Your task to perform on an android device: change text size in settings app Image 0: 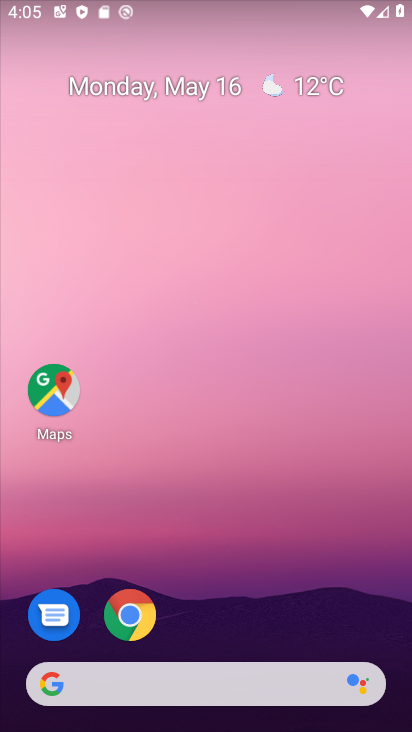
Step 0: drag from (222, 723) to (213, 212)
Your task to perform on an android device: change text size in settings app Image 1: 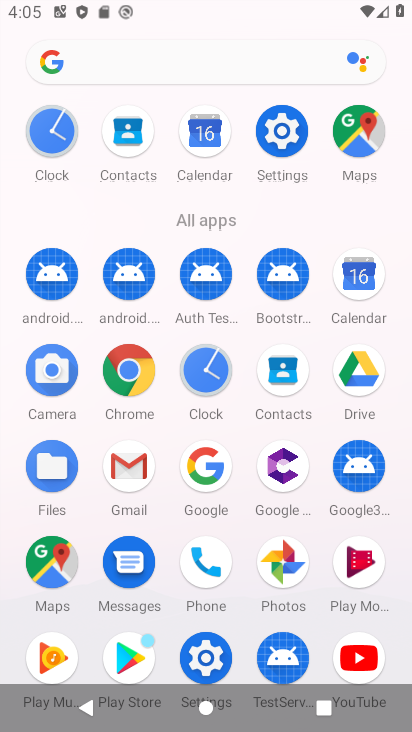
Step 1: click (279, 133)
Your task to perform on an android device: change text size in settings app Image 2: 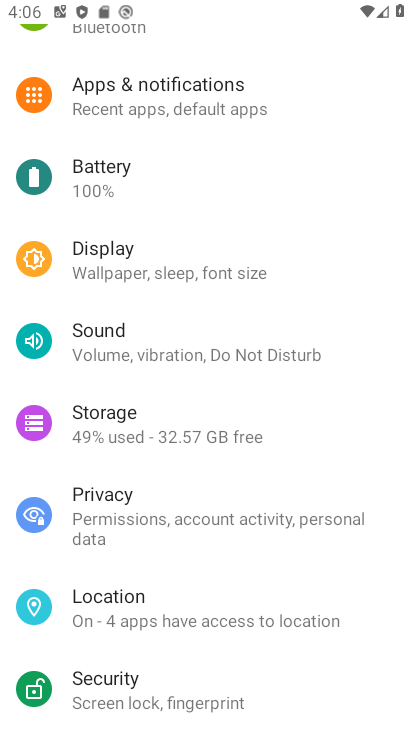
Step 2: click (147, 273)
Your task to perform on an android device: change text size in settings app Image 3: 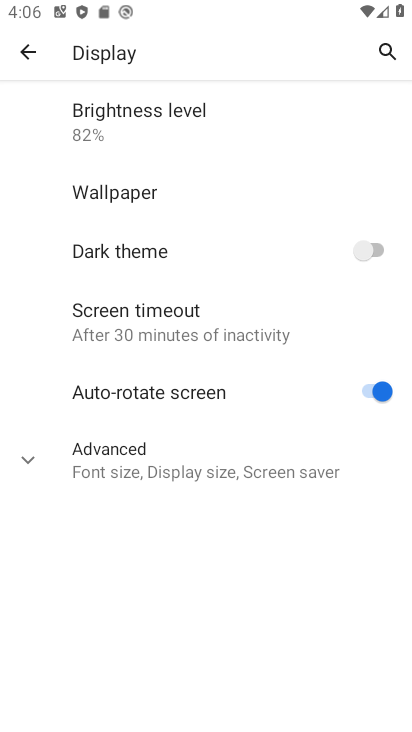
Step 3: click (111, 456)
Your task to perform on an android device: change text size in settings app Image 4: 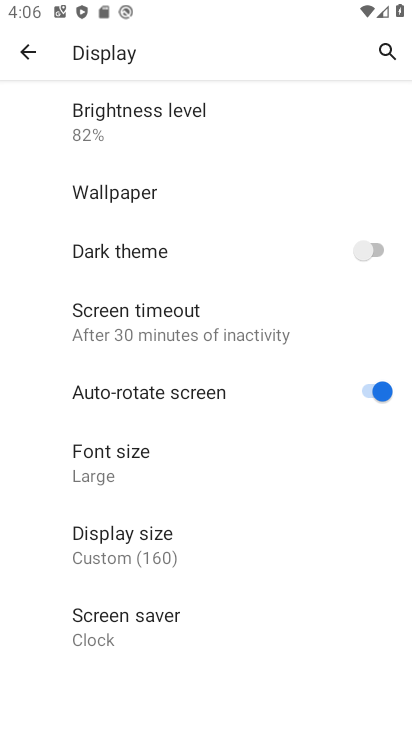
Step 4: click (111, 456)
Your task to perform on an android device: change text size in settings app Image 5: 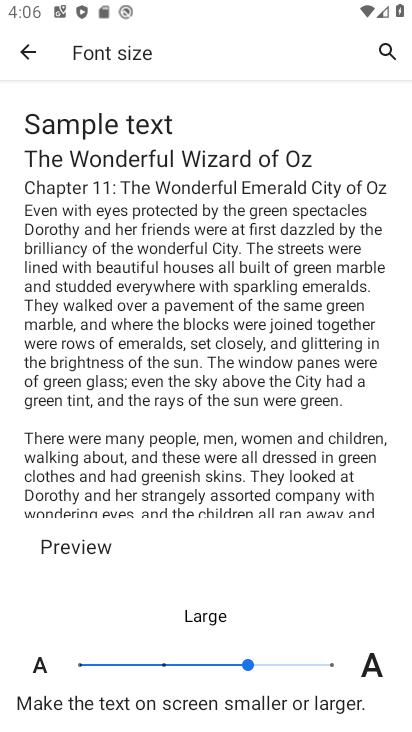
Step 5: click (160, 663)
Your task to perform on an android device: change text size in settings app Image 6: 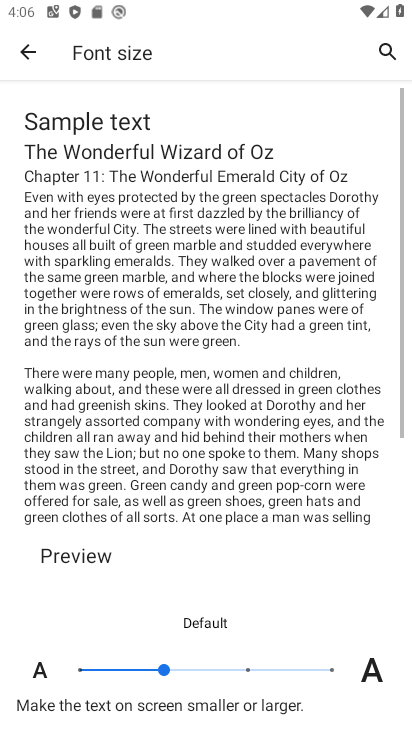
Step 6: task complete